Your task to perform on an android device: Open calendar and show me the third week of next month Image 0: 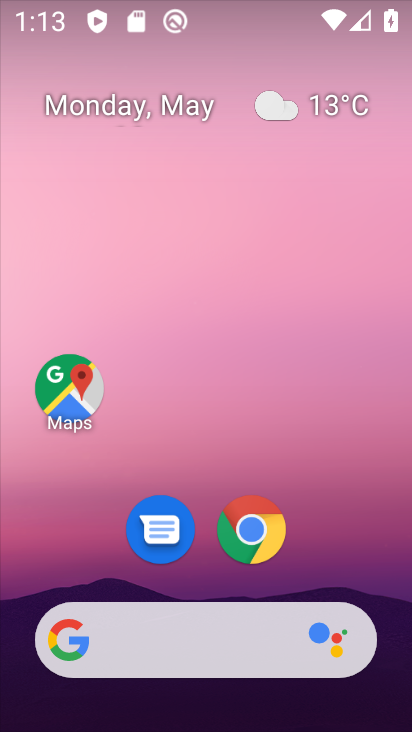
Step 0: drag from (375, 586) to (305, 166)
Your task to perform on an android device: Open calendar and show me the third week of next month Image 1: 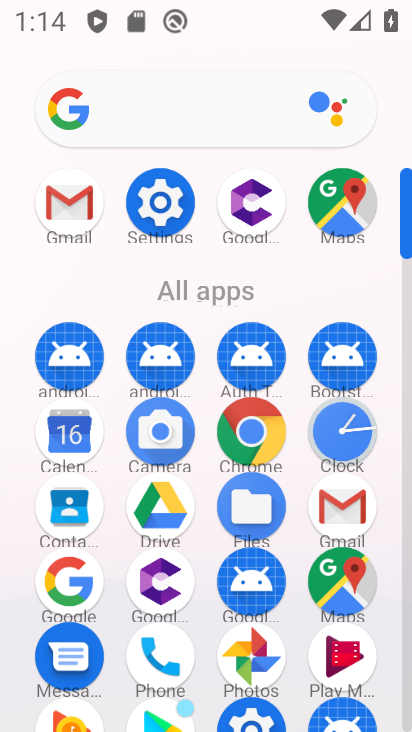
Step 1: click (68, 442)
Your task to perform on an android device: Open calendar and show me the third week of next month Image 2: 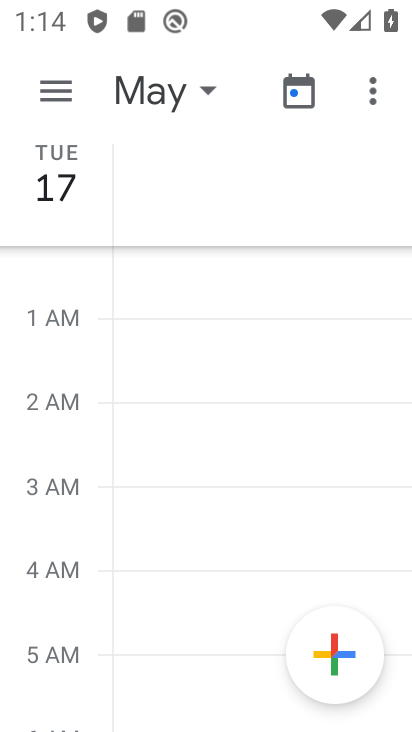
Step 2: click (50, 92)
Your task to perform on an android device: Open calendar and show me the third week of next month Image 3: 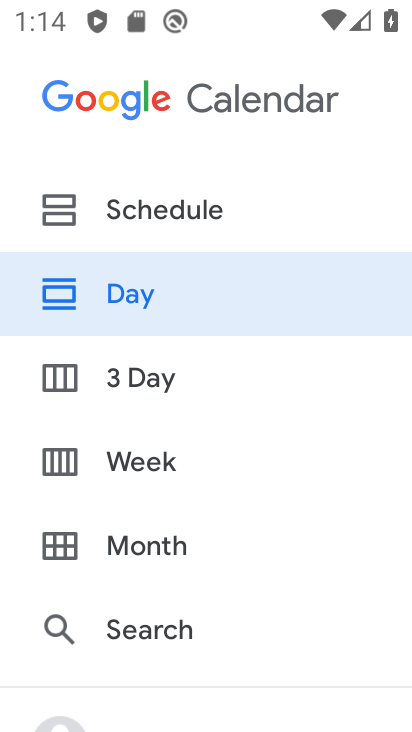
Step 3: click (184, 461)
Your task to perform on an android device: Open calendar and show me the third week of next month Image 4: 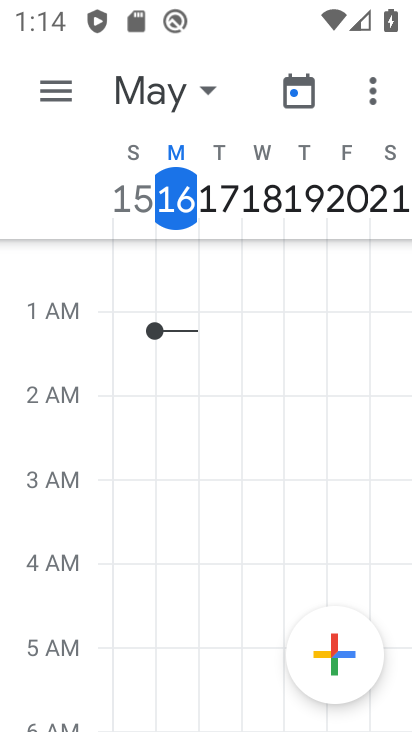
Step 4: click (196, 97)
Your task to perform on an android device: Open calendar and show me the third week of next month Image 5: 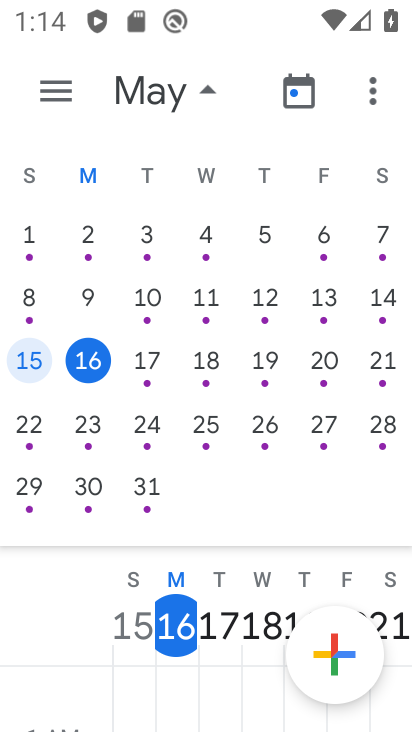
Step 5: drag from (390, 343) to (23, 332)
Your task to perform on an android device: Open calendar and show me the third week of next month Image 6: 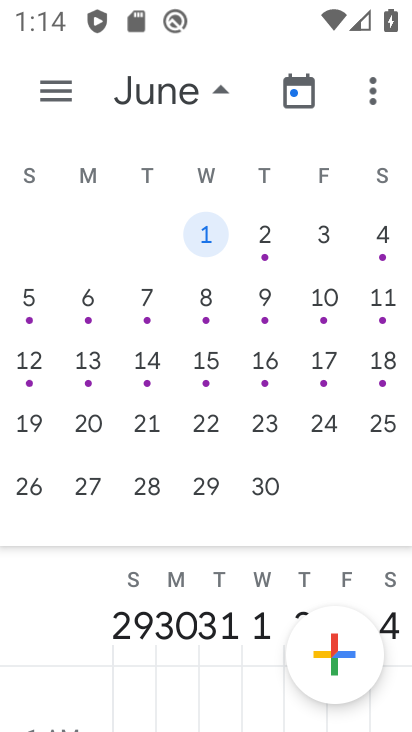
Step 6: click (273, 363)
Your task to perform on an android device: Open calendar and show me the third week of next month Image 7: 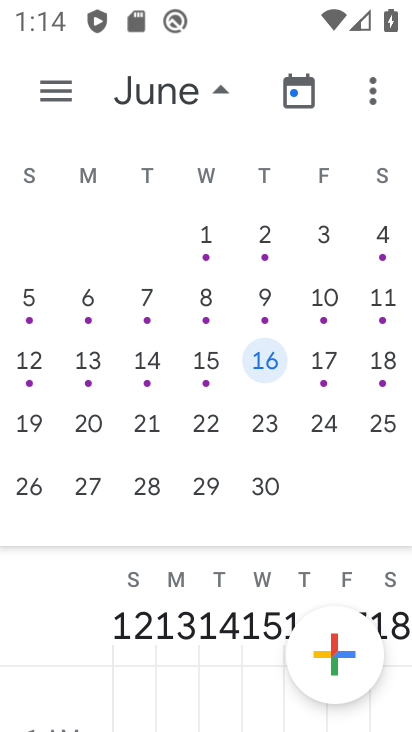
Step 7: click (225, 88)
Your task to perform on an android device: Open calendar and show me the third week of next month Image 8: 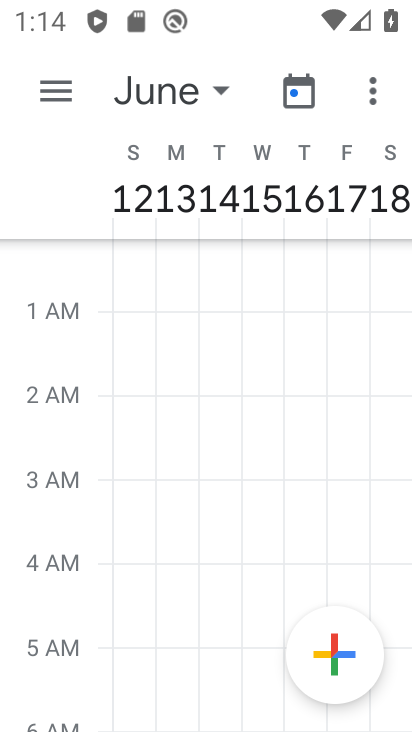
Step 8: task complete